Your task to perform on an android device: toggle notifications settings in the gmail app Image 0: 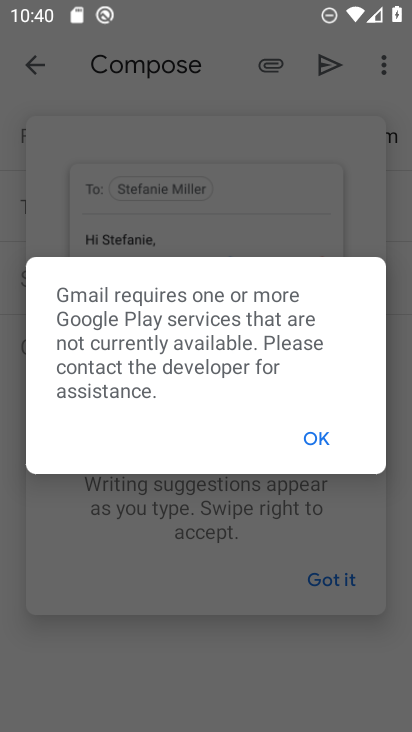
Step 0: press home button
Your task to perform on an android device: toggle notifications settings in the gmail app Image 1: 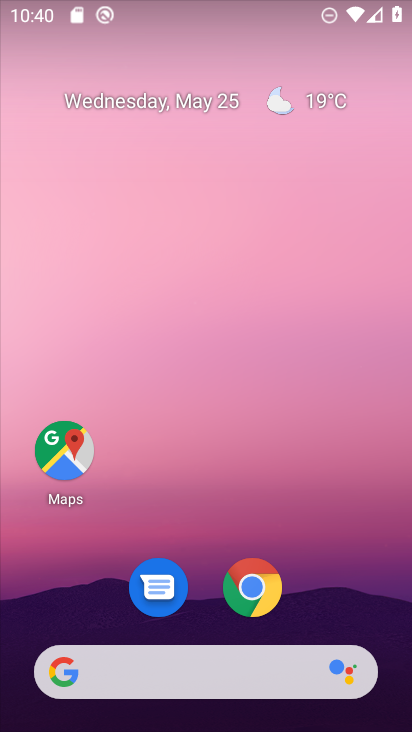
Step 1: drag from (376, 571) to (323, 96)
Your task to perform on an android device: toggle notifications settings in the gmail app Image 2: 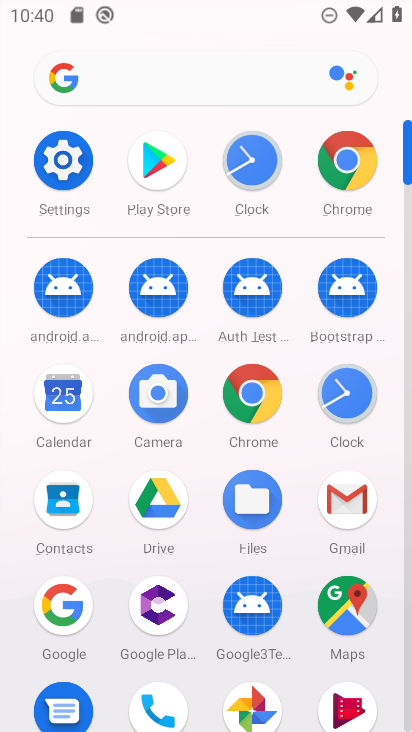
Step 2: click (346, 500)
Your task to perform on an android device: toggle notifications settings in the gmail app Image 3: 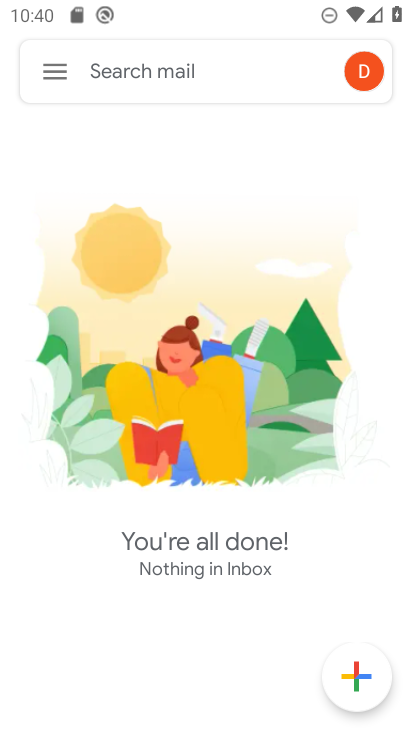
Step 3: click (49, 72)
Your task to perform on an android device: toggle notifications settings in the gmail app Image 4: 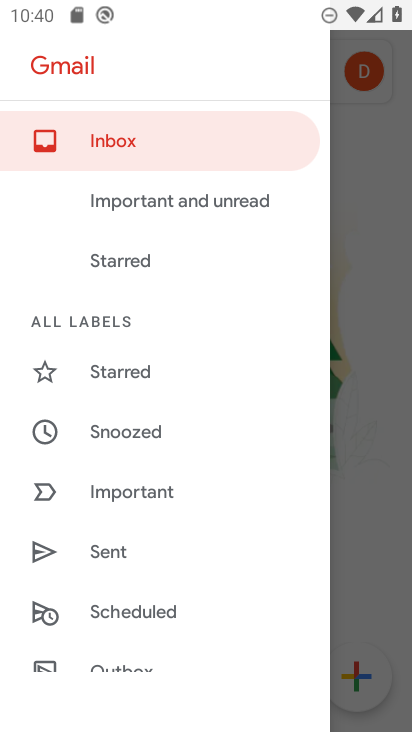
Step 4: drag from (217, 619) to (253, 207)
Your task to perform on an android device: toggle notifications settings in the gmail app Image 5: 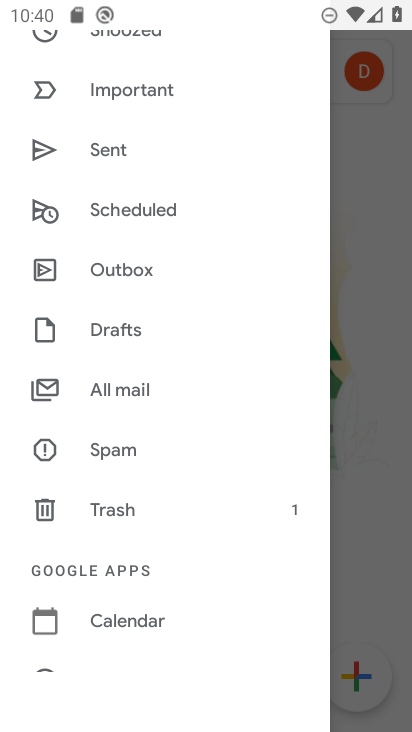
Step 5: drag from (214, 631) to (231, 204)
Your task to perform on an android device: toggle notifications settings in the gmail app Image 6: 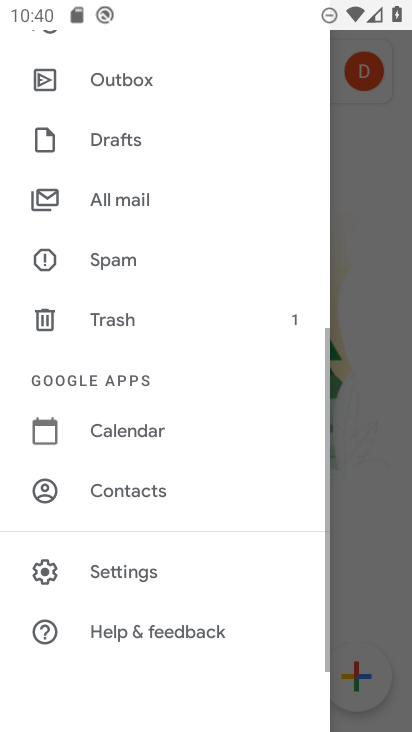
Step 6: click (121, 571)
Your task to perform on an android device: toggle notifications settings in the gmail app Image 7: 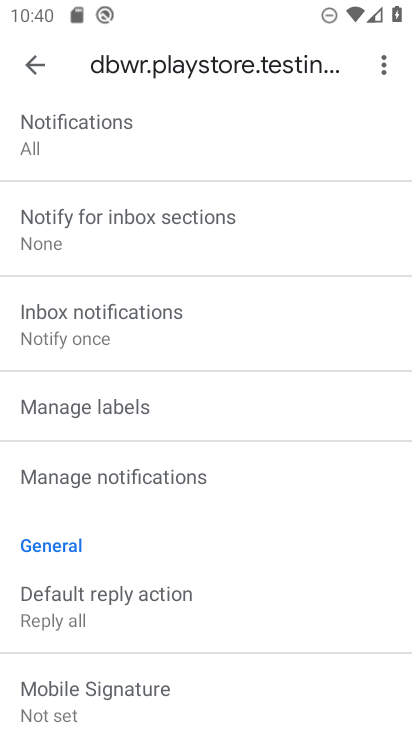
Step 7: click (143, 469)
Your task to perform on an android device: toggle notifications settings in the gmail app Image 8: 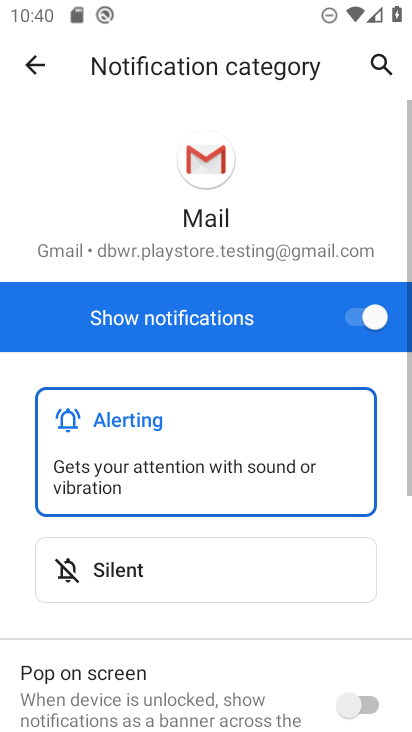
Step 8: click (345, 321)
Your task to perform on an android device: toggle notifications settings in the gmail app Image 9: 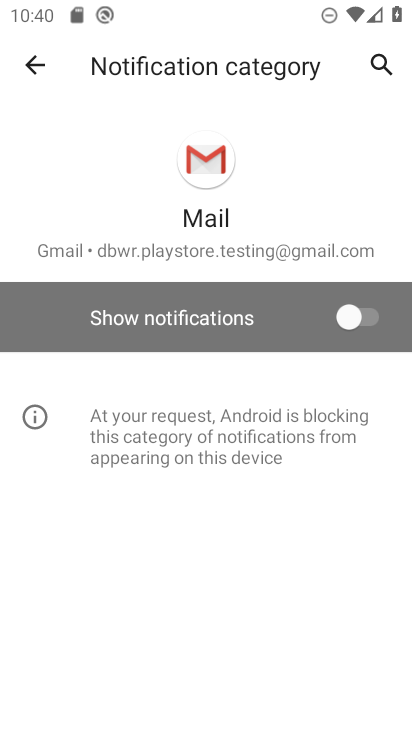
Step 9: task complete